Your task to perform on an android device: delete the emails in spam in the gmail app Image 0: 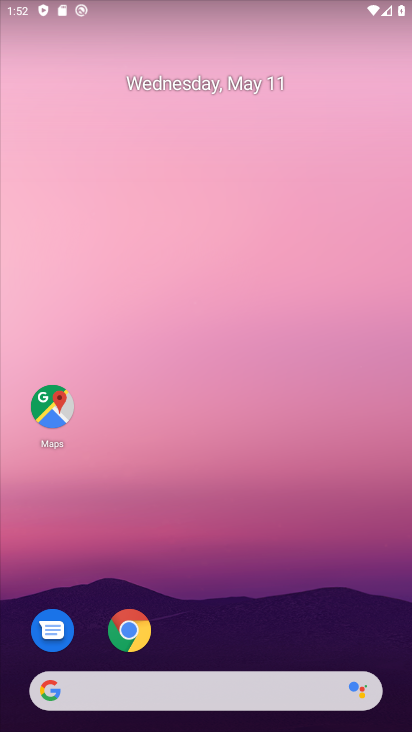
Step 0: drag from (181, 692) to (173, 352)
Your task to perform on an android device: delete the emails in spam in the gmail app Image 1: 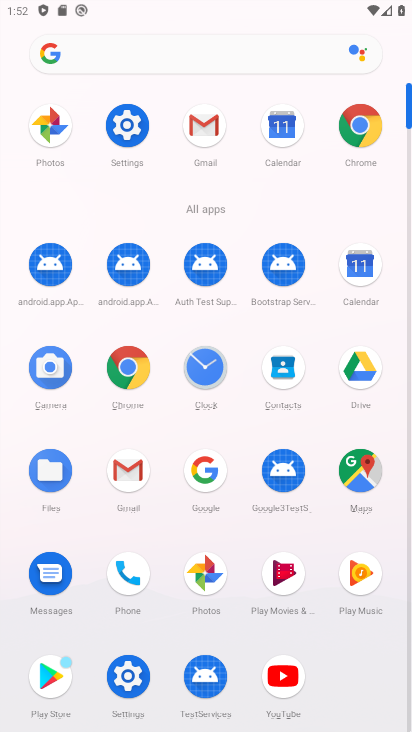
Step 1: click (129, 473)
Your task to perform on an android device: delete the emails in spam in the gmail app Image 2: 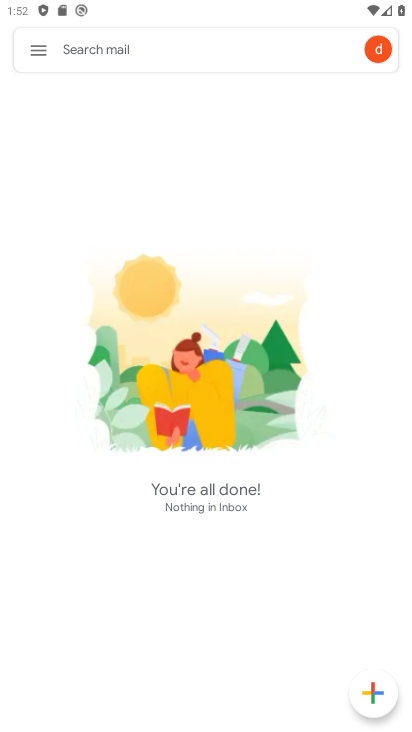
Step 2: click (38, 45)
Your task to perform on an android device: delete the emails in spam in the gmail app Image 3: 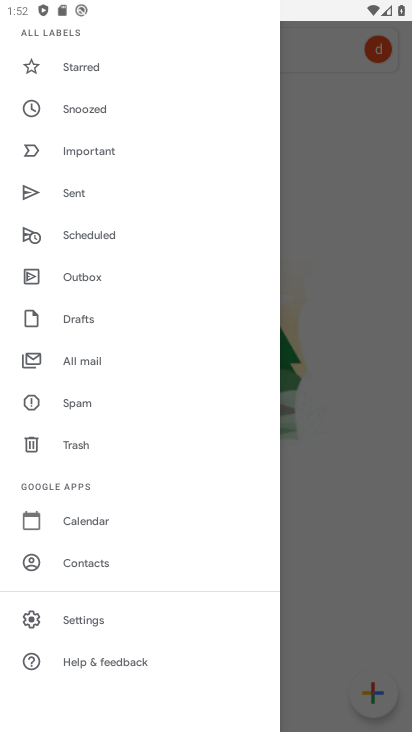
Step 3: click (88, 404)
Your task to perform on an android device: delete the emails in spam in the gmail app Image 4: 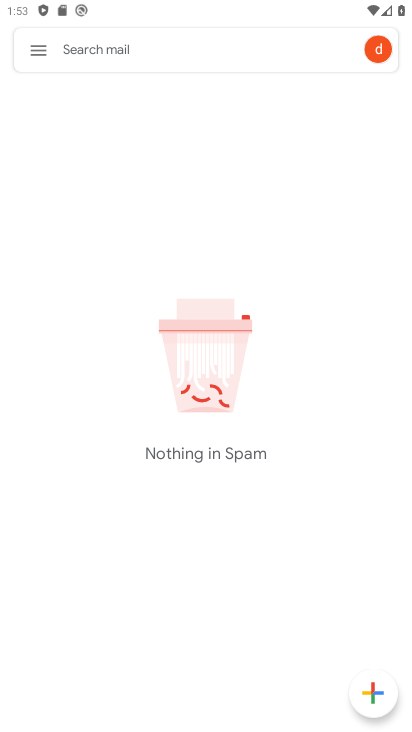
Step 4: task complete